Your task to perform on an android device: show emergency info Image 0: 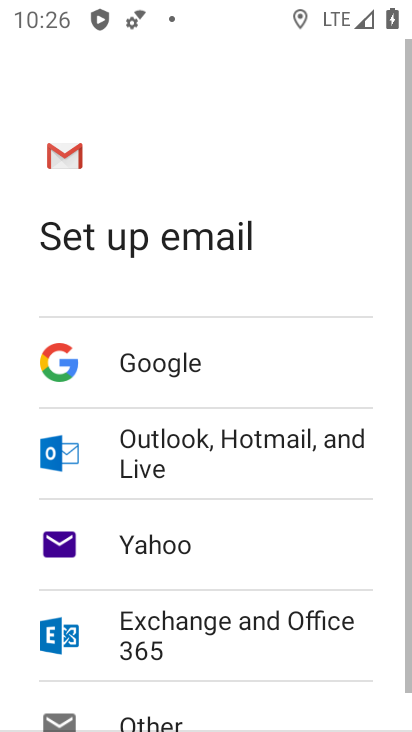
Step 0: press home button
Your task to perform on an android device: show emergency info Image 1: 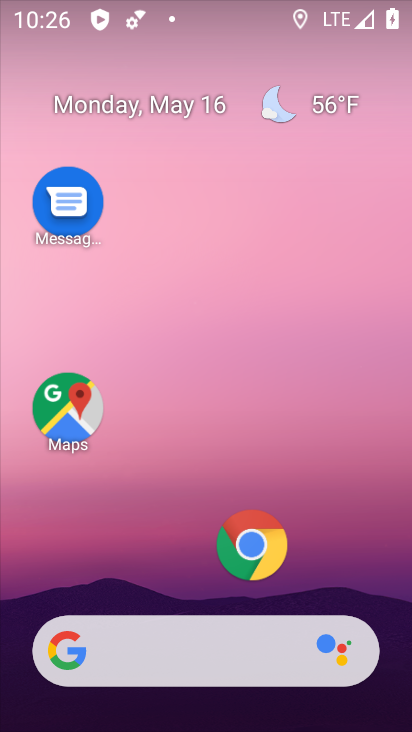
Step 1: drag from (210, 582) to (179, 47)
Your task to perform on an android device: show emergency info Image 2: 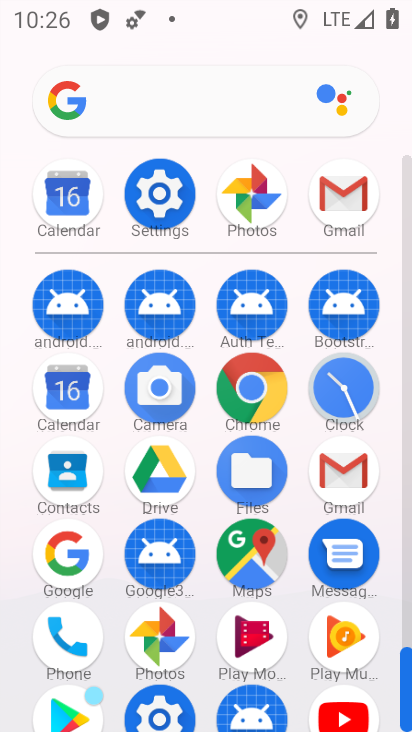
Step 2: click (162, 170)
Your task to perform on an android device: show emergency info Image 3: 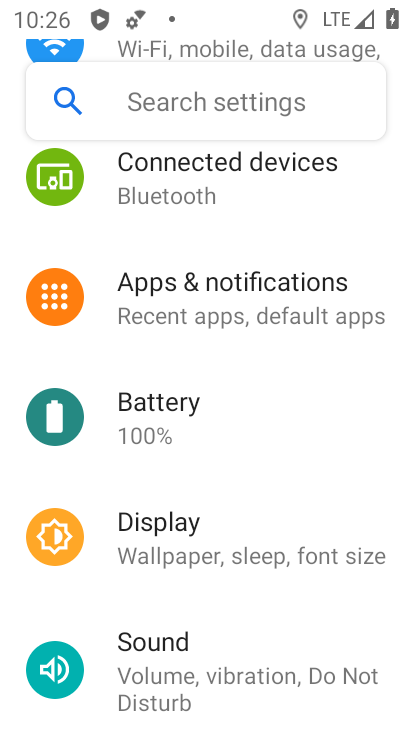
Step 3: drag from (137, 610) to (104, 220)
Your task to perform on an android device: show emergency info Image 4: 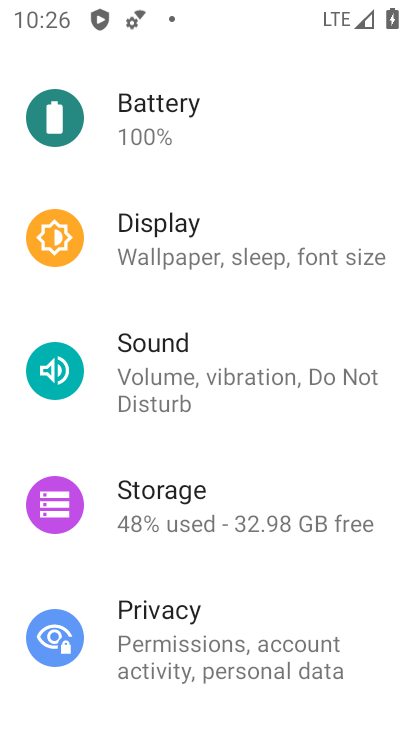
Step 4: drag from (282, 670) to (204, 121)
Your task to perform on an android device: show emergency info Image 5: 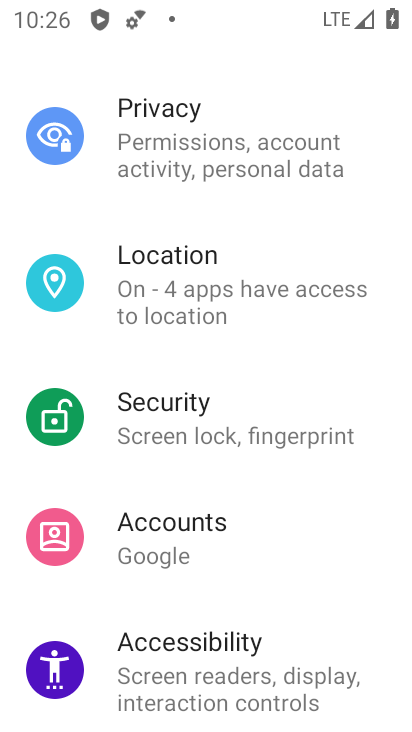
Step 5: drag from (231, 689) to (225, 163)
Your task to perform on an android device: show emergency info Image 6: 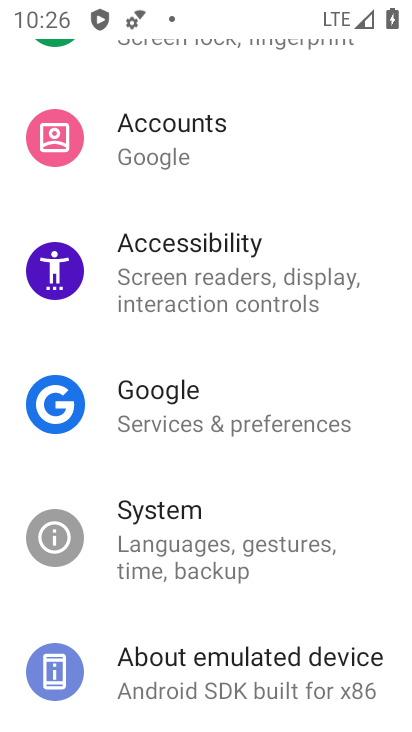
Step 6: click (232, 658)
Your task to perform on an android device: show emergency info Image 7: 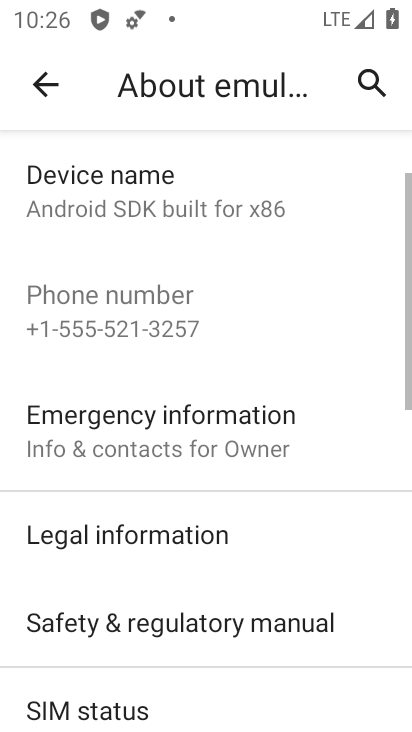
Step 7: click (160, 392)
Your task to perform on an android device: show emergency info Image 8: 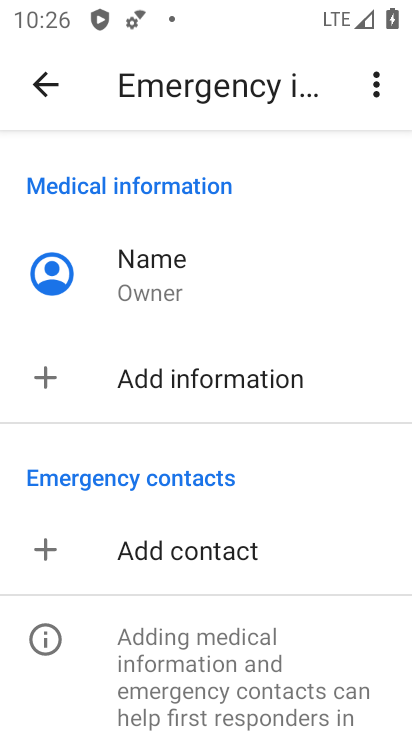
Step 8: task complete